Your task to perform on an android device: Go to accessibility settings Image 0: 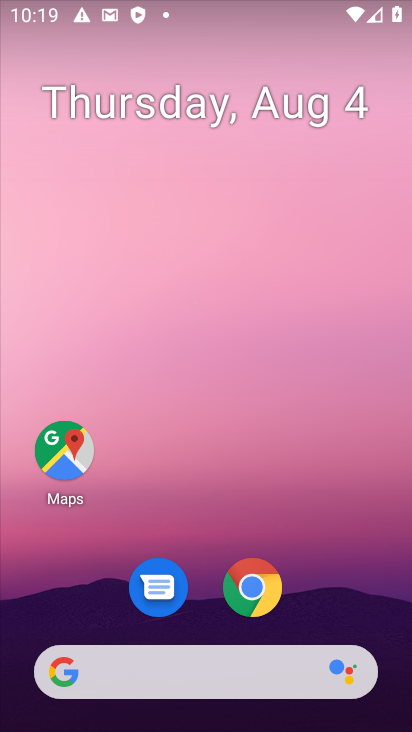
Step 0: drag from (209, 615) to (236, 295)
Your task to perform on an android device: Go to accessibility settings Image 1: 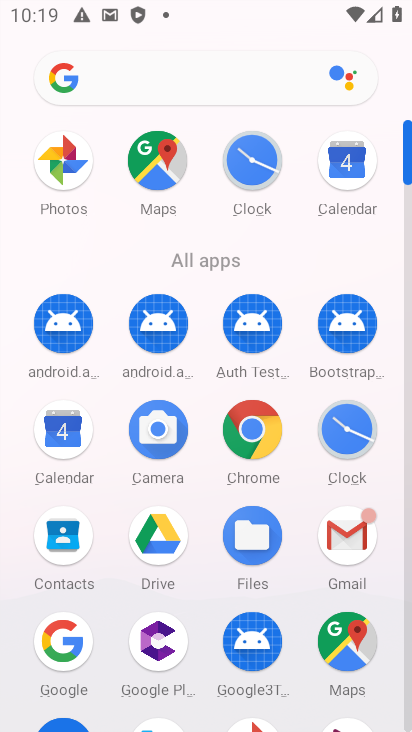
Step 1: drag from (210, 617) to (214, 218)
Your task to perform on an android device: Go to accessibility settings Image 2: 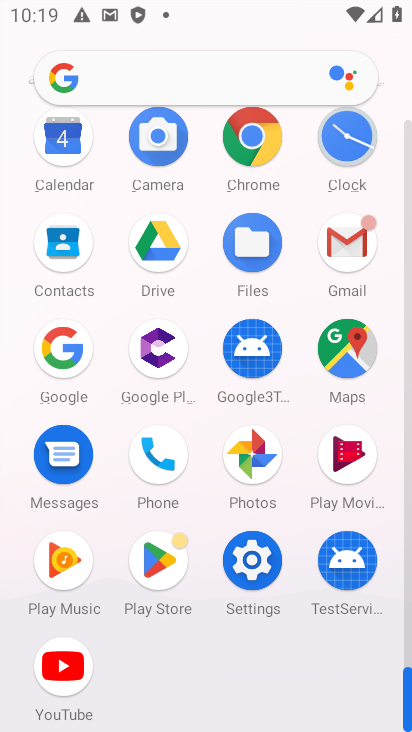
Step 2: click (243, 566)
Your task to perform on an android device: Go to accessibility settings Image 3: 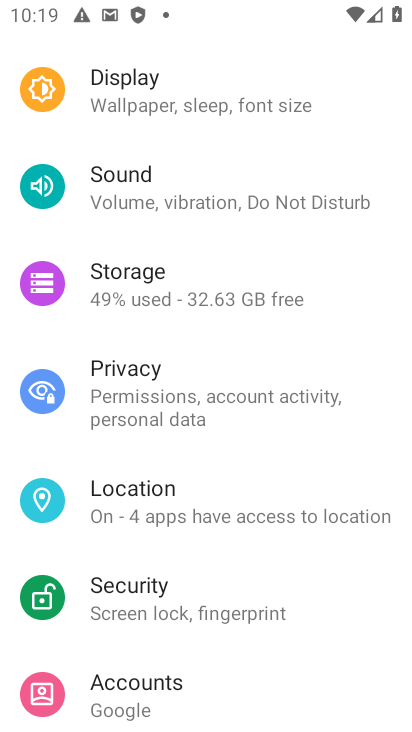
Step 3: drag from (247, 667) to (289, 275)
Your task to perform on an android device: Go to accessibility settings Image 4: 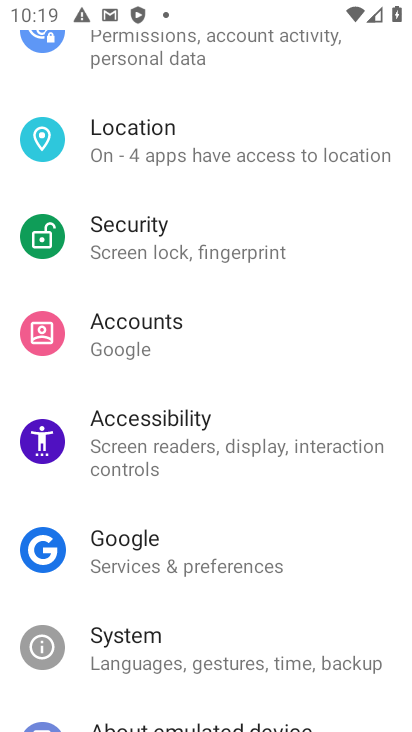
Step 4: click (208, 415)
Your task to perform on an android device: Go to accessibility settings Image 5: 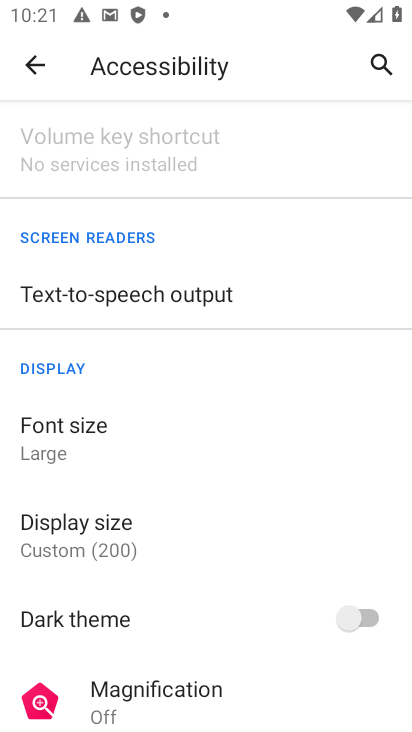
Step 5: task complete